Your task to perform on an android device: change the clock display to show seconds Image 0: 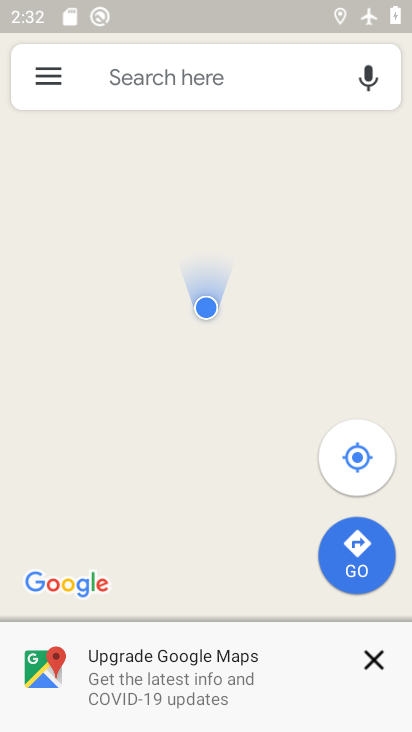
Step 0: press home button
Your task to perform on an android device: change the clock display to show seconds Image 1: 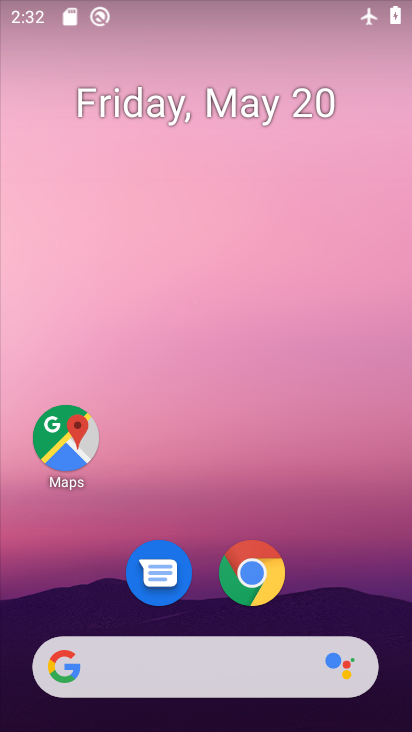
Step 1: drag from (201, 577) to (203, 190)
Your task to perform on an android device: change the clock display to show seconds Image 2: 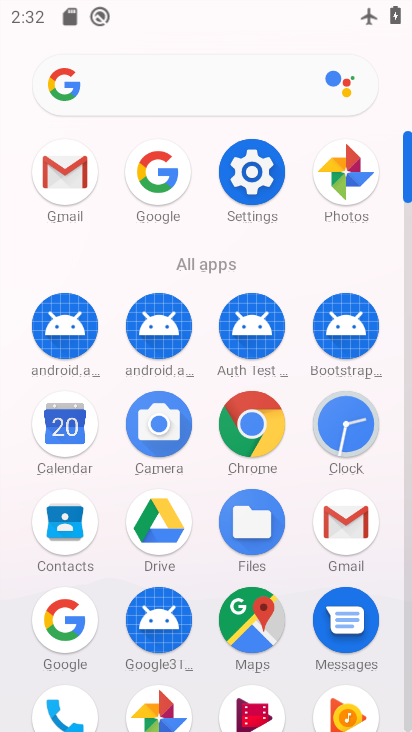
Step 2: click (321, 431)
Your task to perform on an android device: change the clock display to show seconds Image 3: 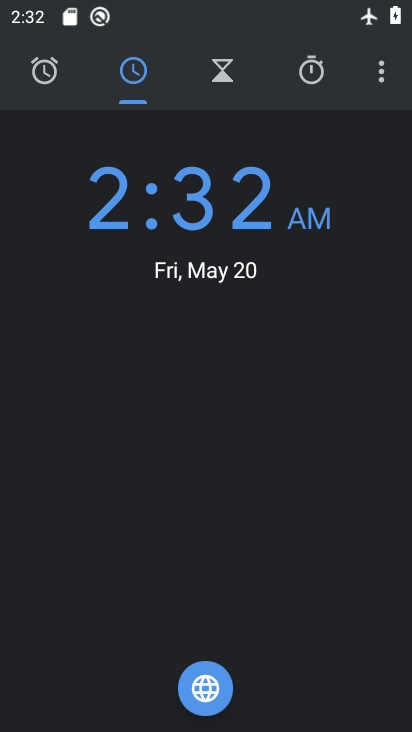
Step 3: click (380, 82)
Your task to perform on an android device: change the clock display to show seconds Image 4: 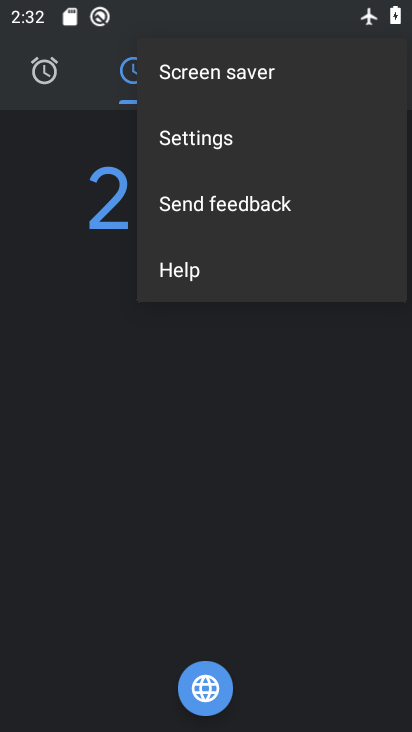
Step 4: click (248, 136)
Your task to perform on an android device: change the clock display to show seconds Image 5: 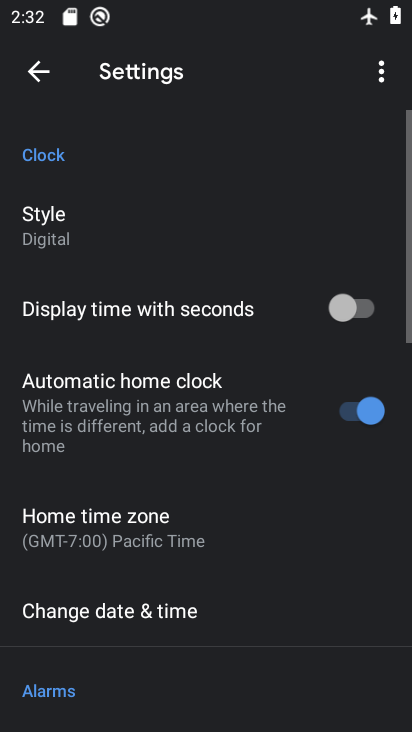
Step 5: click (366, 308)
Your task to perform on an android device: change the clock display to show seconds Image 6: 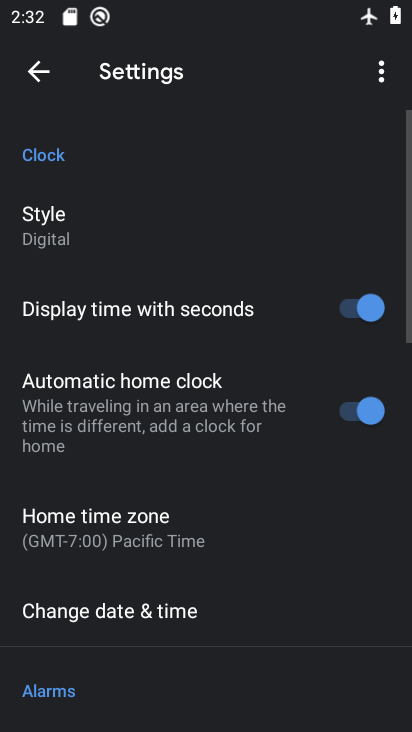
Step 6: task complete